Your task to perform on an android device: What's a good restaurant in Phoenix? Image 0: 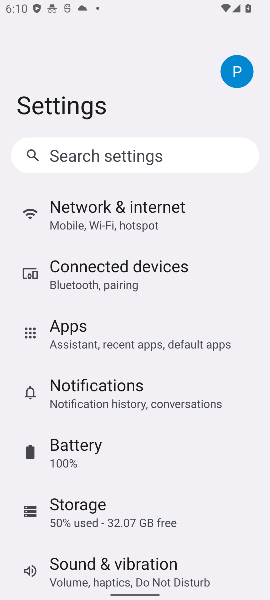
Step 0: press home button
Your task to perform on an android device: What's a good restaurant in Phoenix? Image 1: 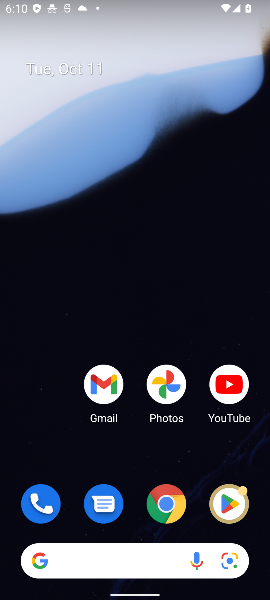
Step 1: click (127, 551)
Your task to perform on an android device: What's a good restaurant in Phoenix? Image 2: 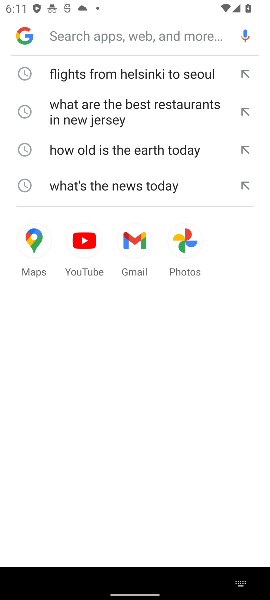
Step 2: click (101, 32)
Your task to perform on an android device: What's a good restaurant in Phoenix? Image 3: 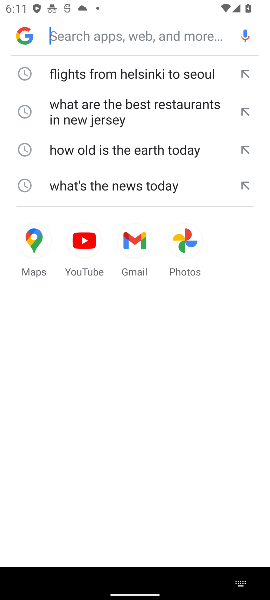
Step 3: type "What's a good restaurant in Phoenix?"
Your task to perform on an android device: What's a good restaurant in Phoenix? Image 4: 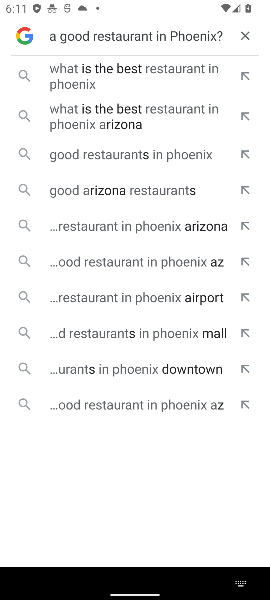
Step 4: click (115, 68)
Your task to perform on an android device: What's a good restaurant in Phoenix? Image 5: 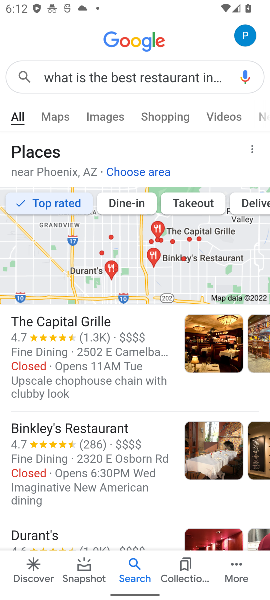
Step 5: task complete